Your task to perform on an android device: turn off airplane mode Image 0: 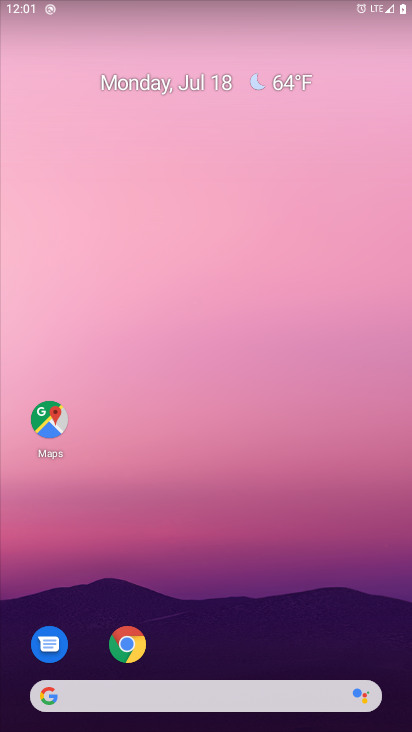
Step 0: drag from (257, 0) to (197, 435)
Your task to perform on an android device: turn off airplane mode Image 1: 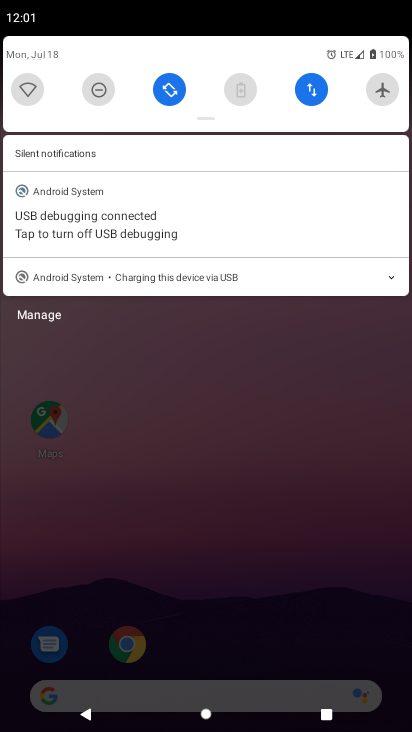
Step 1: task complete